Your task to perform on an android device: Open accessibility settings Image 0: 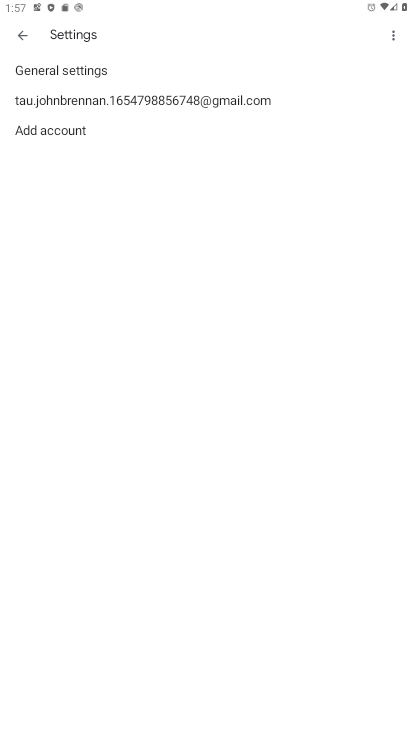
Step 0: press home button
Your task to perform on an android device: Open accessibility settings Image 1: 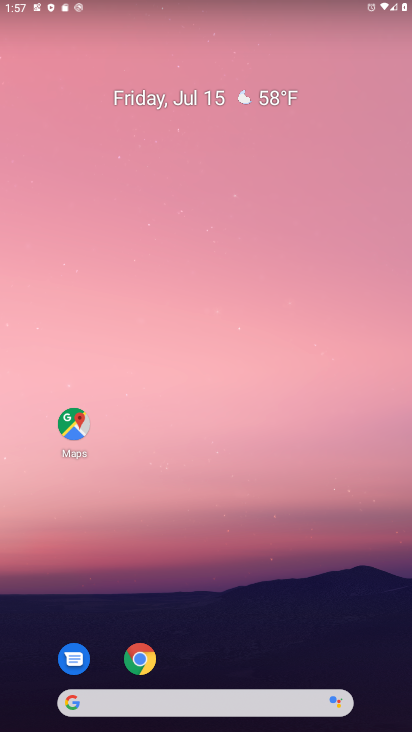
Step 1: drag from (164, 420) to (172, 179)
Your task to perform on an android device: Open accessibility settings Image 2: 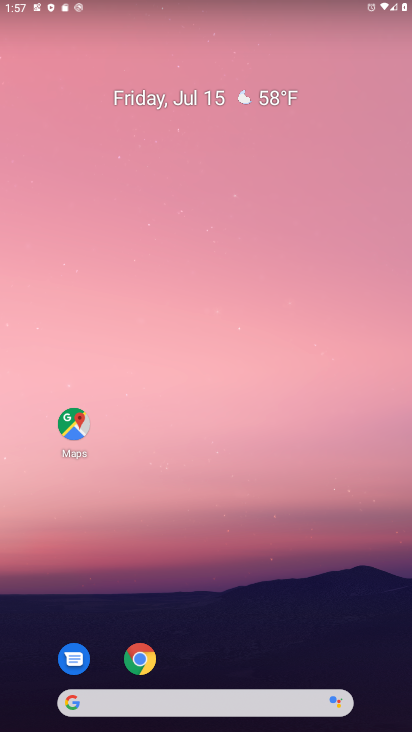
Step 2: drag from (249, 731) to (225, 194)
Your task to perform on an android device: Open accessibility settings Image 3: 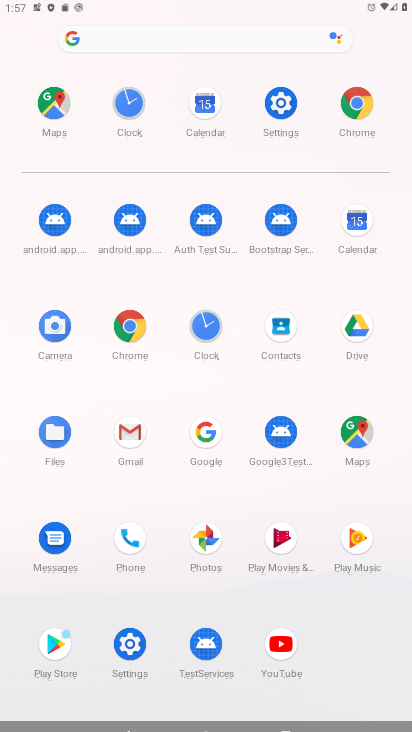
Step 3: click (276, 95)
Your task to perform on an android device: Open accessibility settings Image 4: 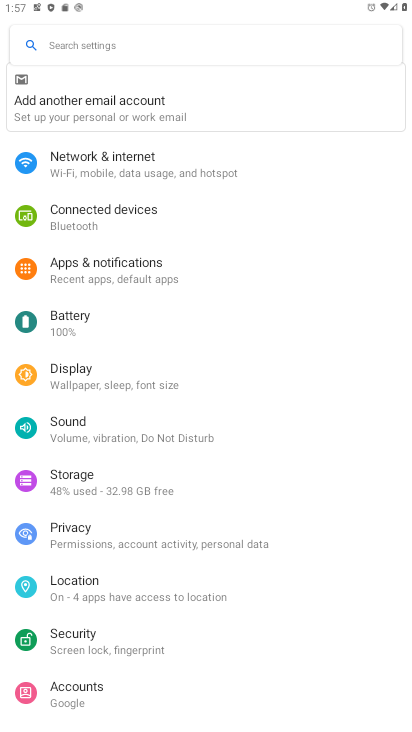
Step 4: drag from (156, 670) to (154, 371)
Your task to perform on an android device: Open accessibility settings Image 5: 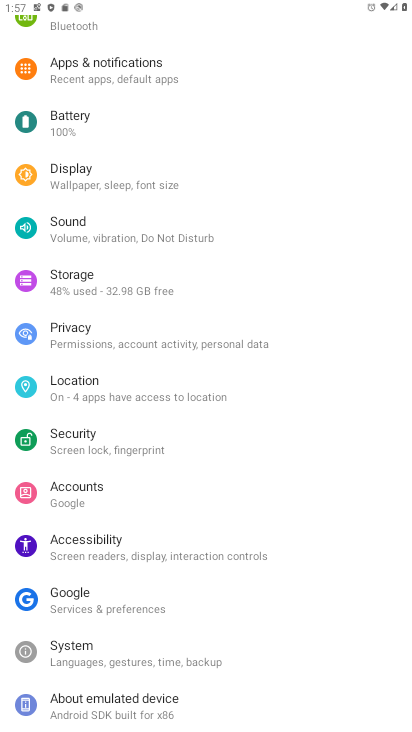
Step 5: click (97, 537)
Your task to perform on an android device: Open accessibility settings Image 6: 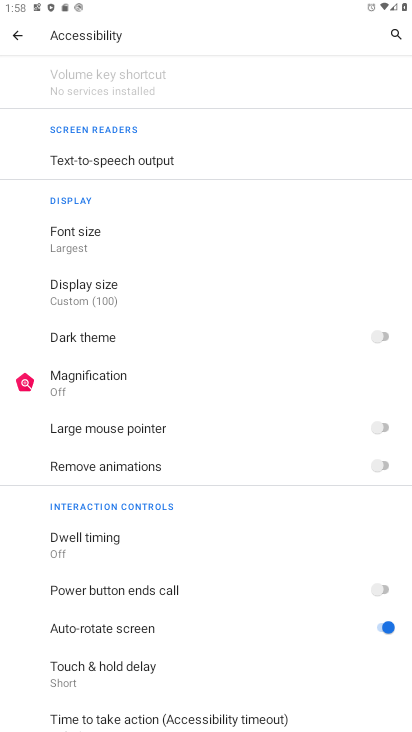
Step 6: task complete